Your task to perform on an android device: toggle location history Image 0: 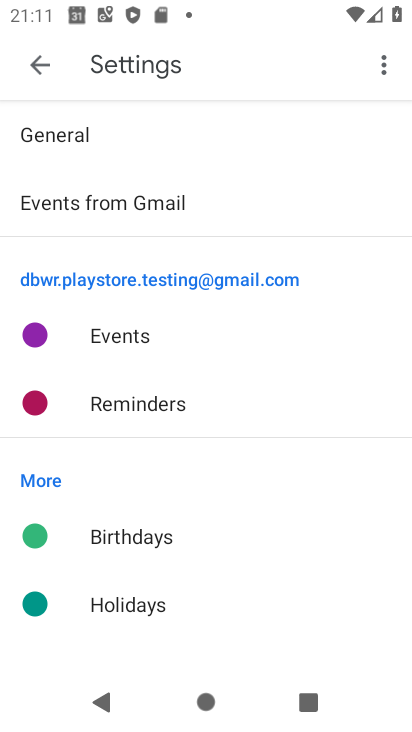
Step 0: press home button
Your task to perform on an android device: toggle location history Image 1: 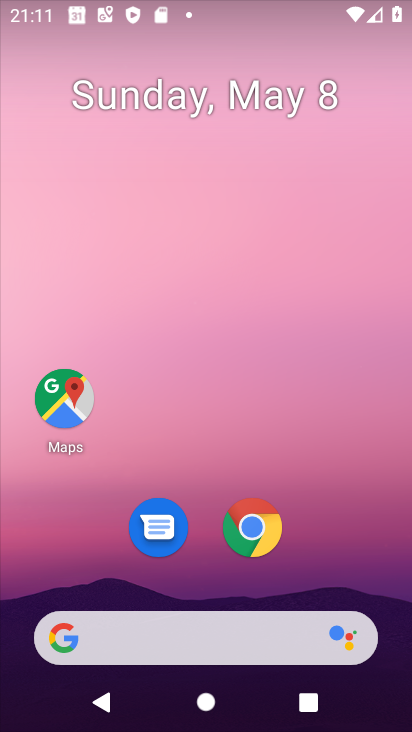
Step 1: drag from (219, 585) to (247, 66)
Your task to perform on an android device: toggle location history Image 2: 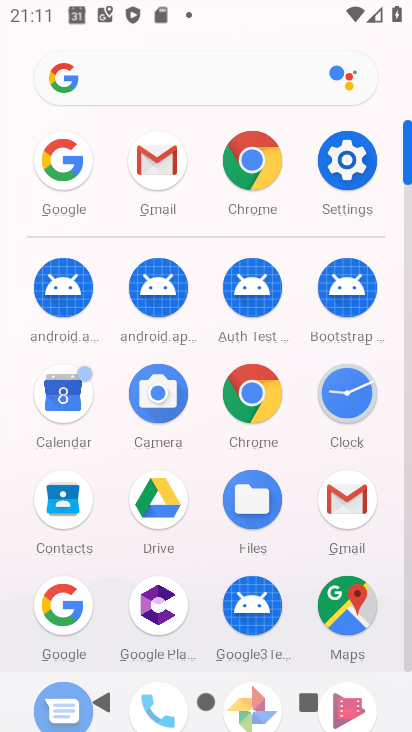
Step 2: click (343, 155)
Your task to perform on an android device: toggle location history Image 3: 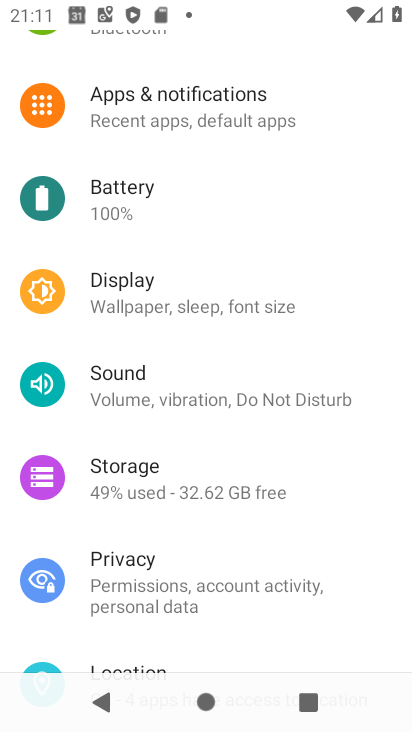
Step 3: drag from (176, 517) to (262, 179)
Your task to perform on an android device: toggle location history Image 4: 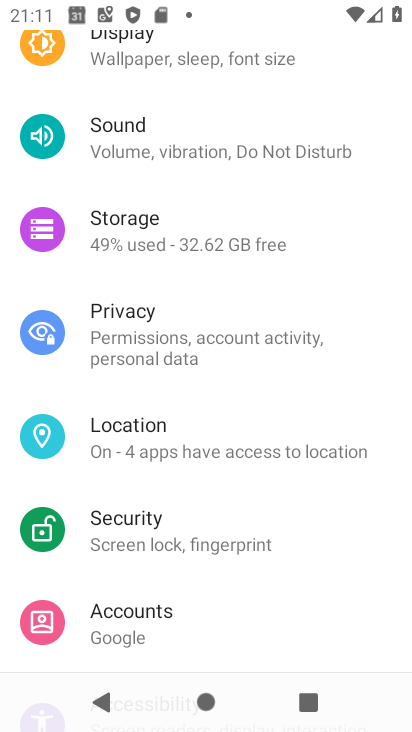
Step 4: click (178, 426)
Your task to perform on an android device: toggle location history Image 5: 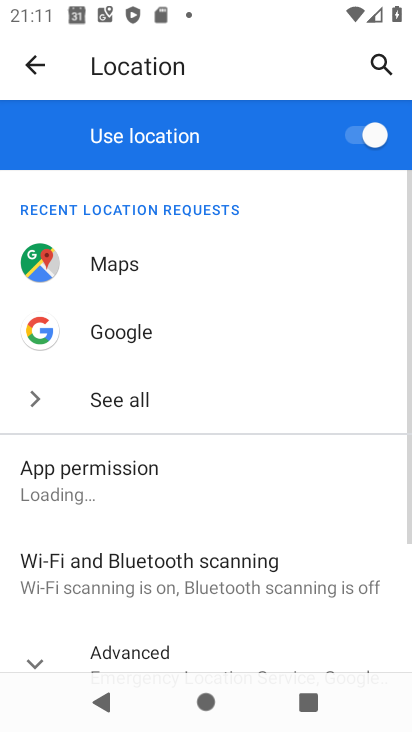
Step 5: drag from (187, 619) to (212, 242)
Your task to perform on an android device: toggle location history Image 6: 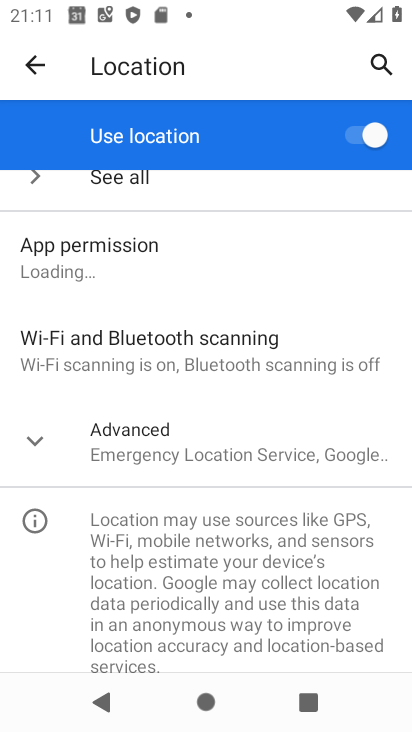
Step 6: click (129, 446)
Your task to perform on an android device: toggle location history Image 7: 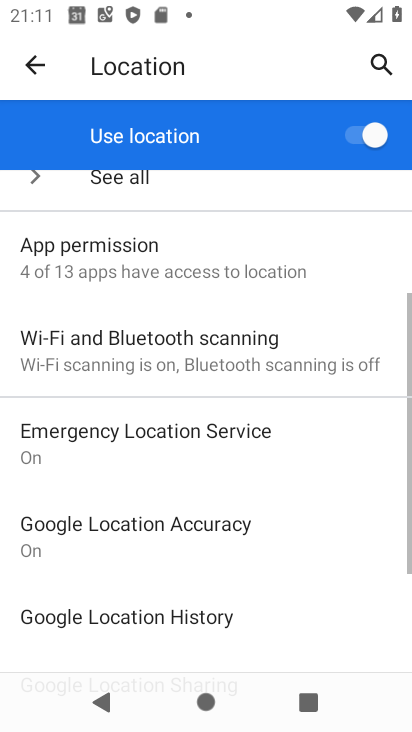
Step 7: drag from (198, 573) to (190, 367)
Your task to perform on an android device: toggle location history Image 8: 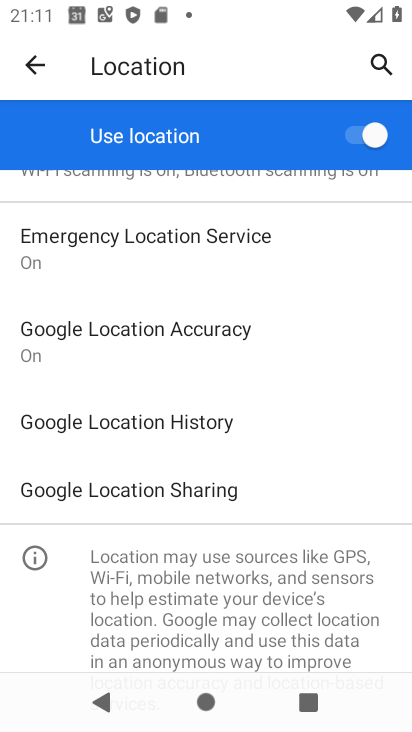
Step 8: click (174, 426)
Your task to perform on an android device: toggle location history Image 9: 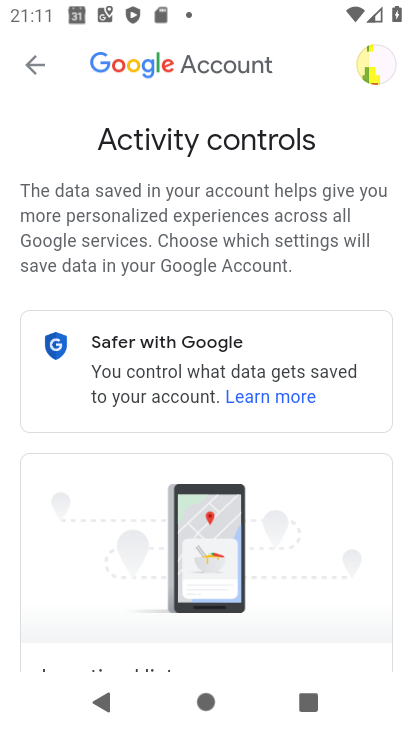
Step 9: drag from (284, 531) to (308, 45)
Your task to perform on an android device: toggle location history Image 10: 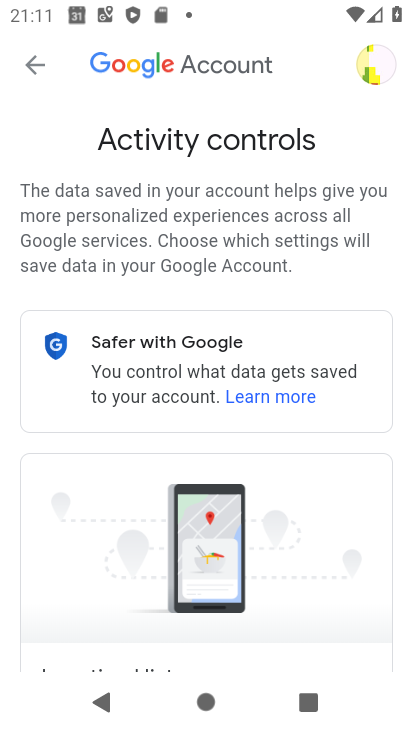
Step 10: drag from (329, 560) to (294, 254)
Your task to perform on an android device: toggle location history Image 11: 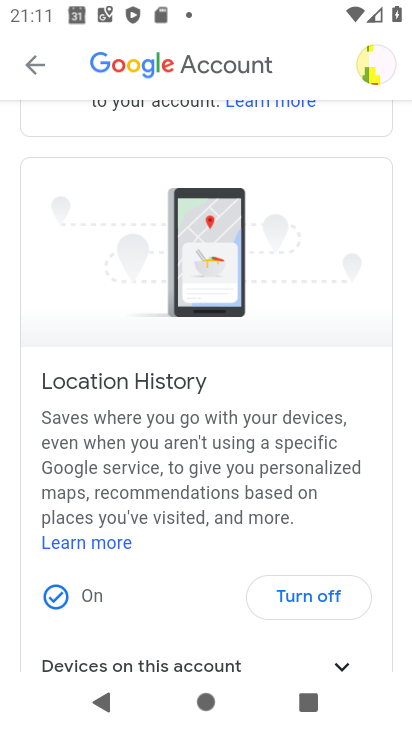
Step 11: click (303, 595)
Your task to perform on an android device: toggle location history Image 12: 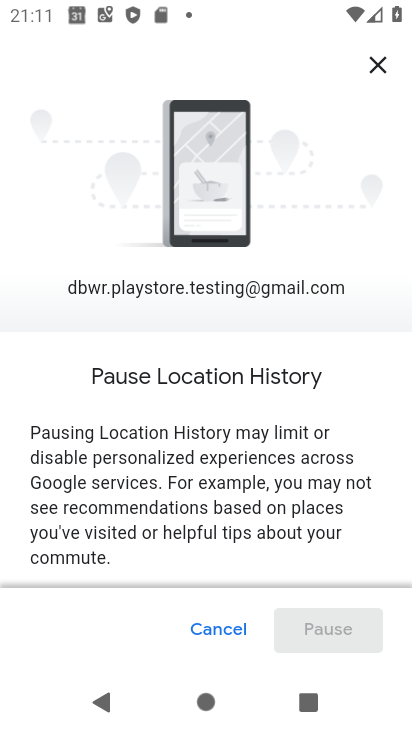
Step 12: drag from (301, 526) to (274, 32)
Your task to perform on an android device: toggle location history Image 13: 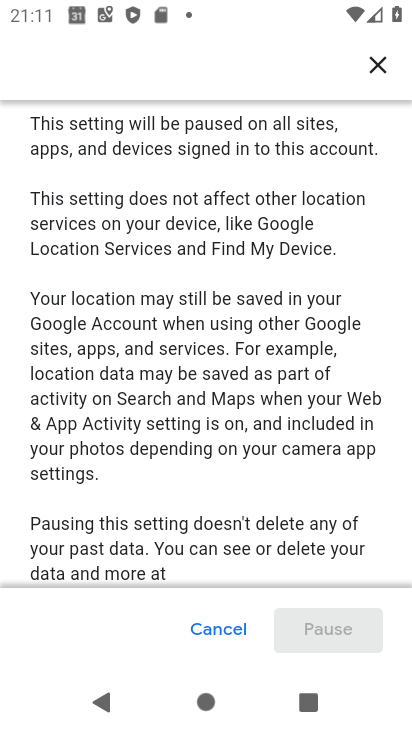
Step 13: drag from (295, 561) to (285, 144)
Your task to perform on an android device: toggle location history Image 14: 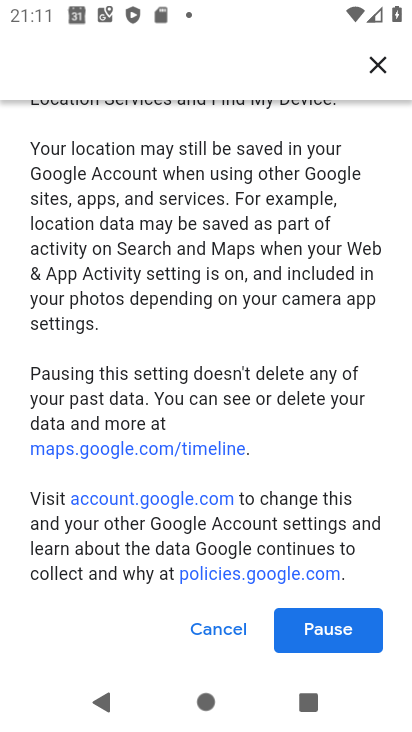
Step 14: click (322, 630)
Your task to perform on an android device: toggle location history Image 15: 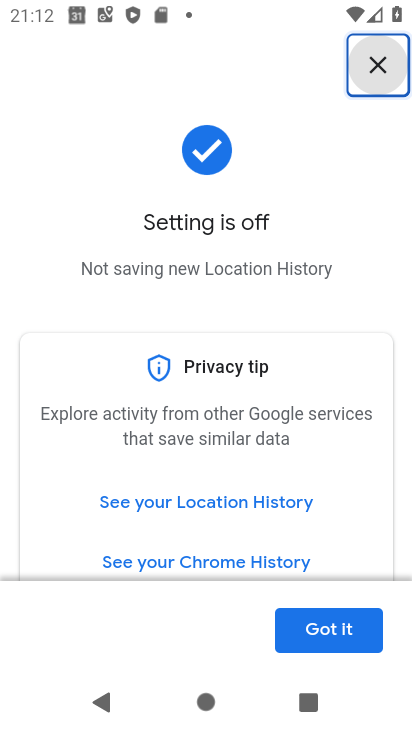
Step 15: click (323, 635)
Your task to perform on an android device: toggle location history Image 16: 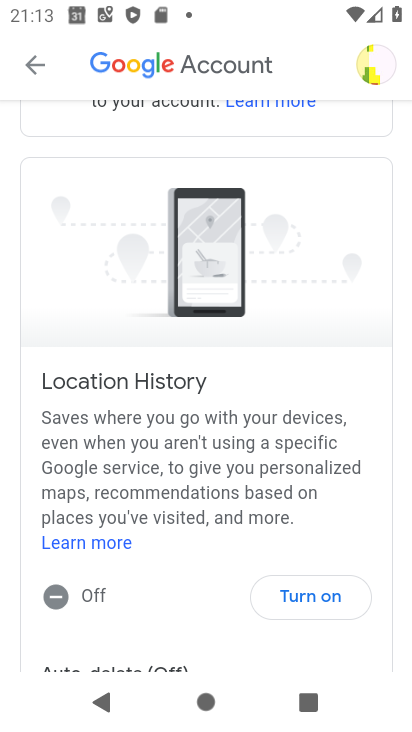
Step 16: task complete